Your task to perform on an android device: What's the weather today? Image 0: 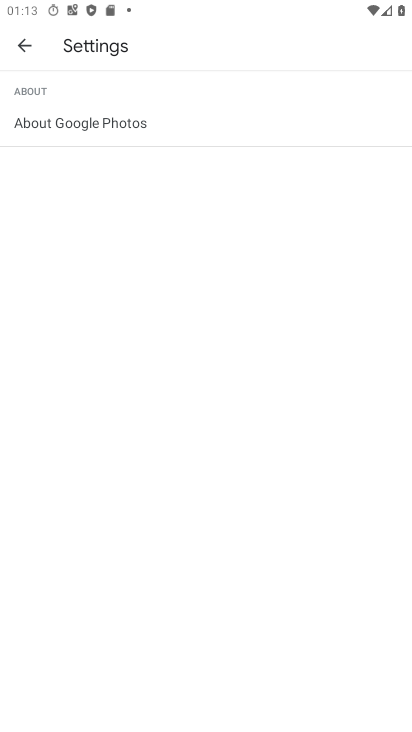
Step 0: press home button
Your task to perform on an android device: What's the weather today? Image 1: 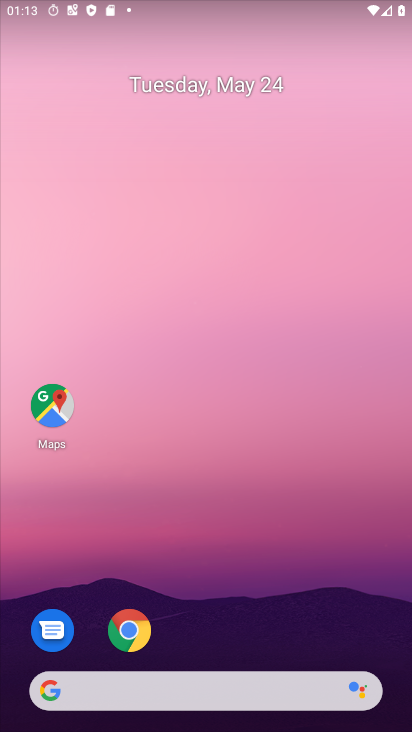
Step 1: click (103, 686)
Your task to perform on an android device: What's the weather today? Image 2: 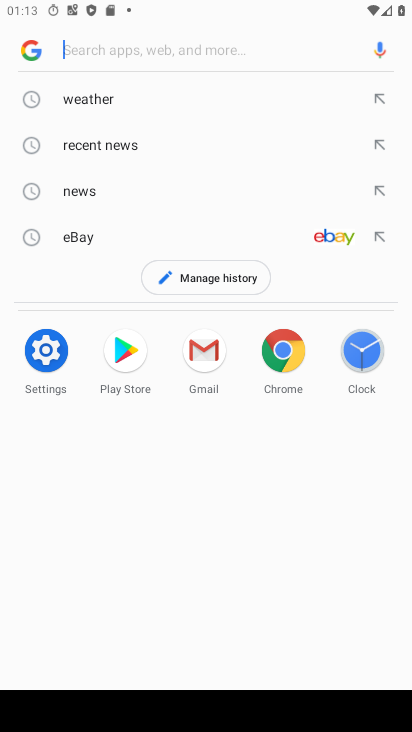
Step 2: click (81, 103)
Your task to perform on an android device: What's the weather today? Image 3: 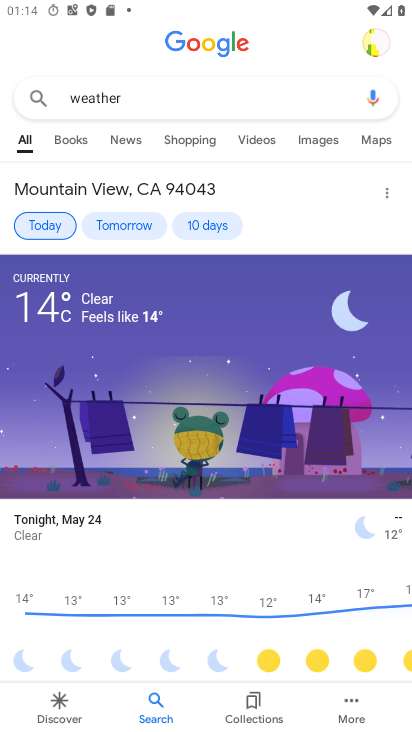
Step 3: task complete